Your task to perform on an android device: Go to Yahoo.com Image 0: 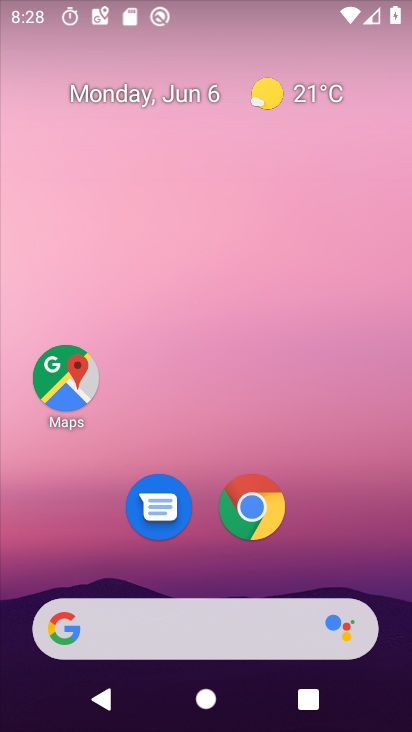
Step 0: click (261, 523)
Your task to perform on an android device: Go to Yahoo.com Image 1: 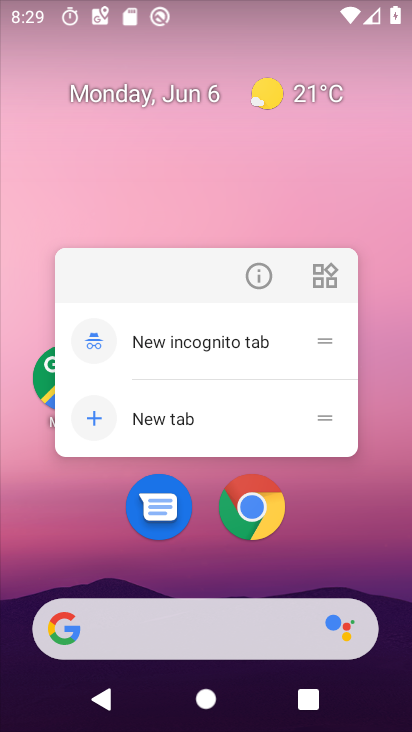
Step 1: click (264, 507)
Your task to perform on an android device: Go to Yahoo.com Image 2: 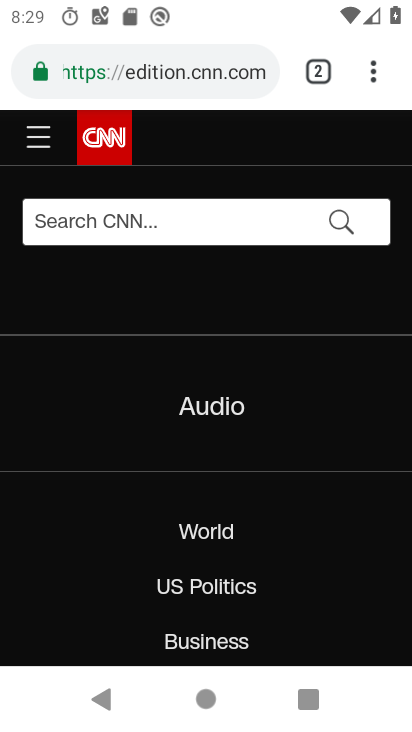
Step 2: click (213, 62)
Your task to perform on an android device: Go to Yahoo.com Image 3: 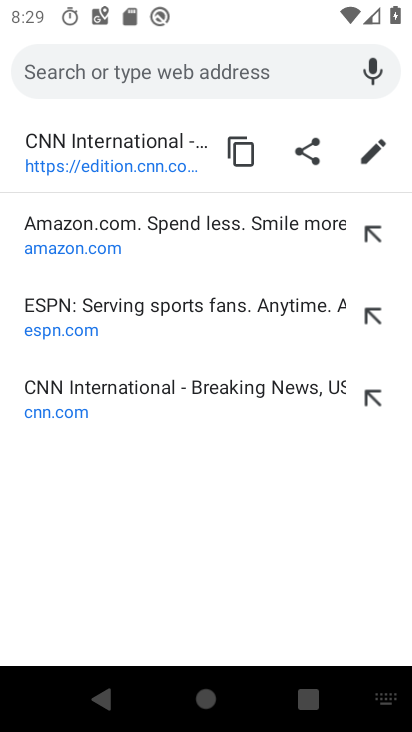
Step 3: type "Yahoo.com"
Your task to perform on an android device: Go to Yahoo.com Image 4: 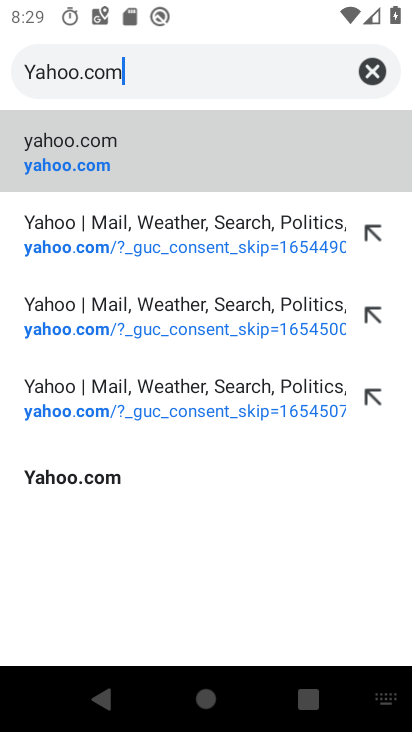
Step 4: type ""
Your task to perform on an android device: Go to Yahoo.com Image 5: 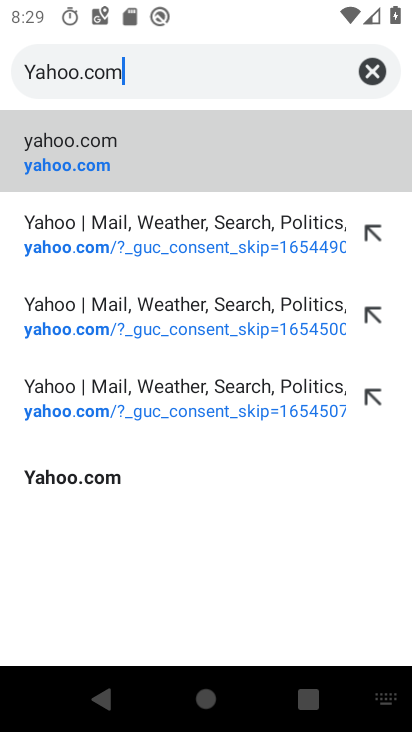
Step 5: click (219, 140)
Your task to perform on an android device: Go to Yahoo.com Image 6: 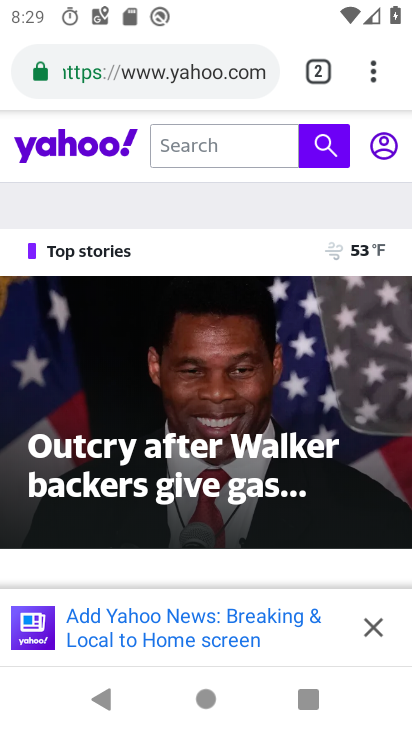
Step 6: task complete